Your task to perform on an android device: Open calendar and show me the first week of next month Image 0: 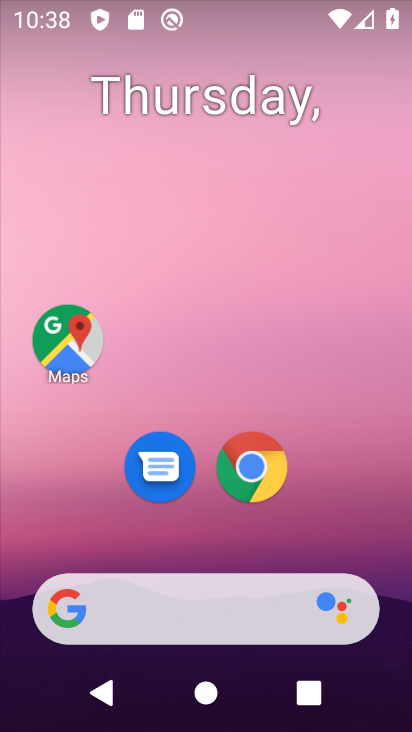
Step 0: drag from (248, 552) to (330, 238)
Your task to perform on an android device: Open calendar and show me the first week of next month Image 1: 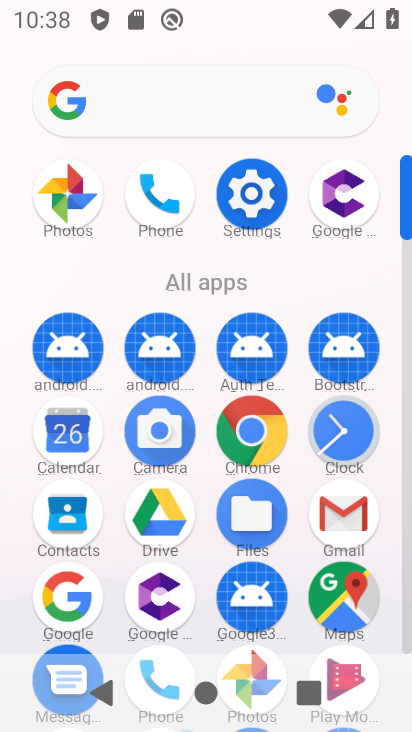
Step 1: click (75, 446)
Your task to perform on an android device: Open calendar and show me the first week of next month Image 2: 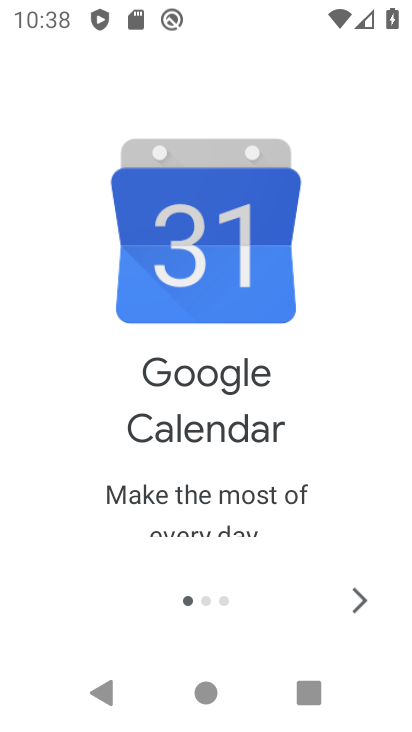
Step 2: click (355, 607)
Your task to perform on an android device: Open calendar and show me the first week of next month Image 3: 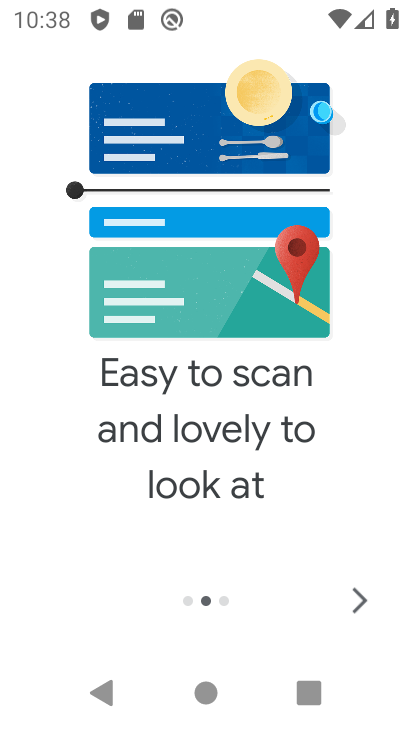
Step 3: click (356, 607)
Your task to perform on an android device: Open calendar and show me the first week of next month Image 4: 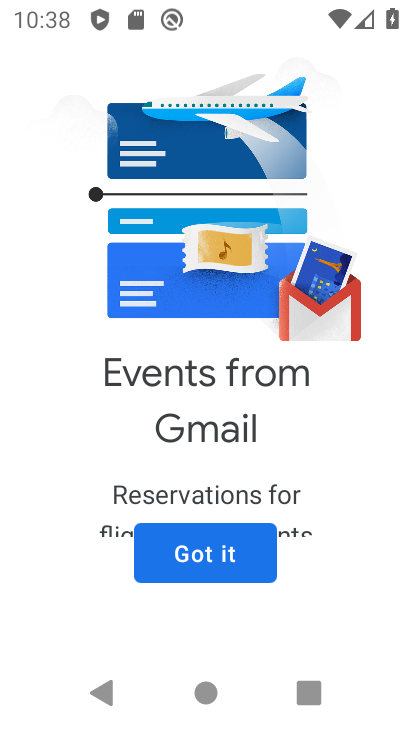
Step 4: click (224, 571)
Your task to perform on an android device: Open calendar and show me the first week of next month Image 5: 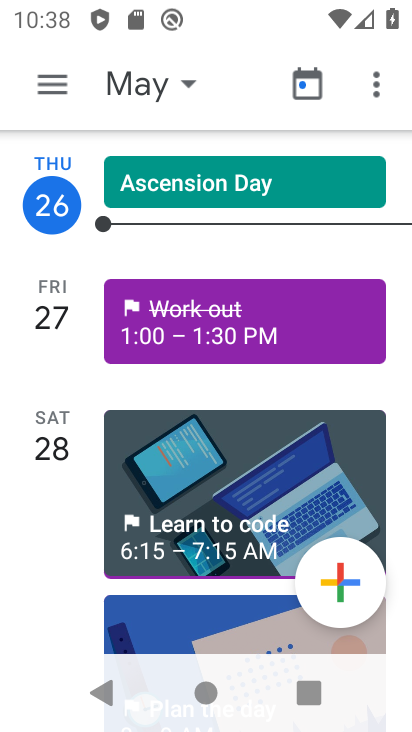
Step 5: click (174, 82)
Your task to perform on an android device: Open calendar and show me the first week of next month Image 6: 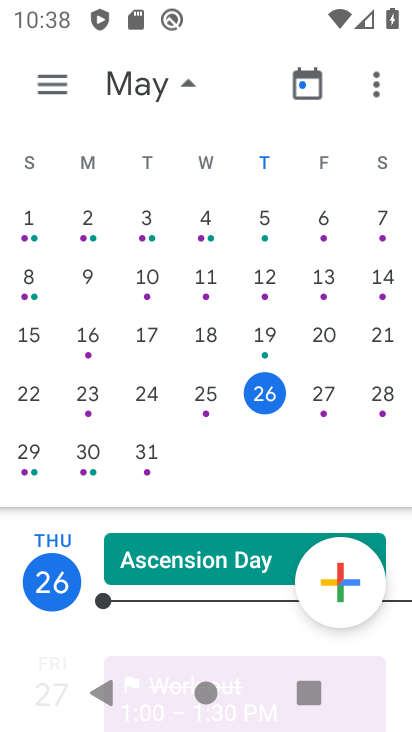
Step 6: drag from (390, 417) to (153, 418)
Your task to perform on an android device: Open calendar and show me the first week of next month Image 7: 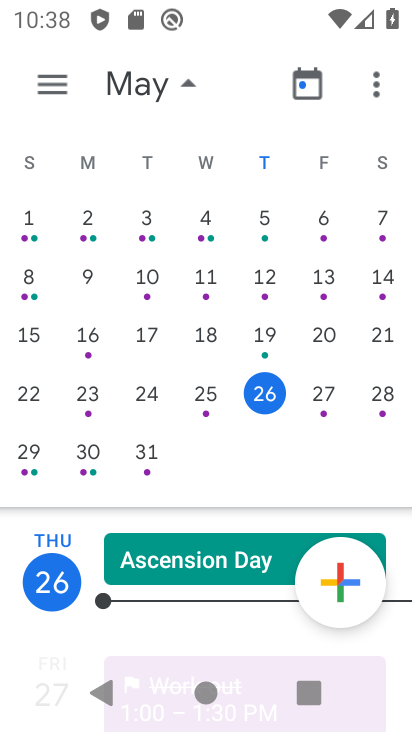
Step 7: drag from (398, 318) to (96, 314)
Your task to perform on an android device: Open calendar and show me the first week of next month Image 8: 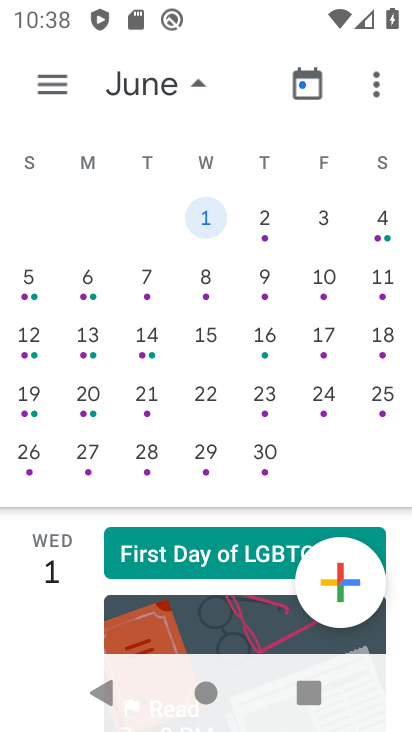
Step 8: click (257, 223)
Your task to perform on an android device: Open calendar and show me the first week of next month Image 9: 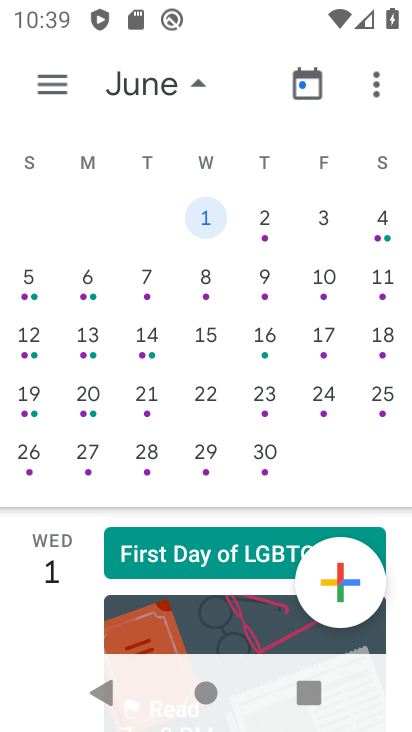
Step 9: click (43, 99)
Your task to perform on an android device: Open calendar and show me the first week of next month Image 10: 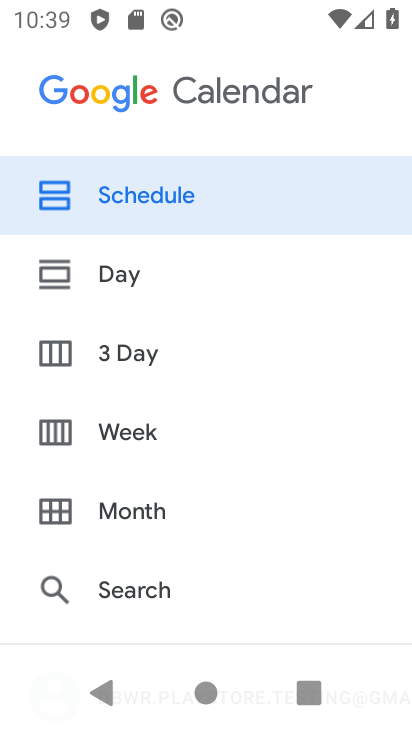
Step 10: click (149, 409)
Your task to perform on an android device: Open calendar and show me the first week of next month Image 11: 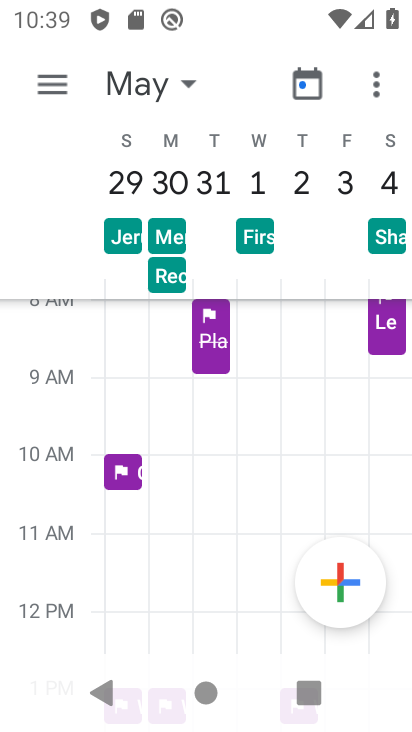
Step 11: click (139, 429)
Your task to perform on an android device: Open calendar and show me the first week of next month Image 12: 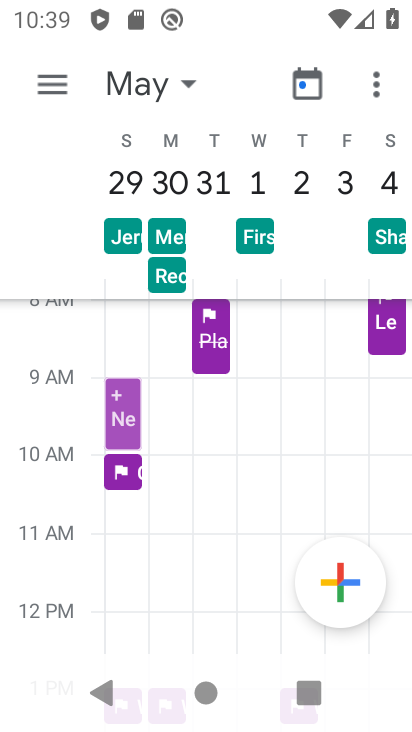
Step 12: task complete